Your task to perform on an android device: Open accessibility settings Image 0: 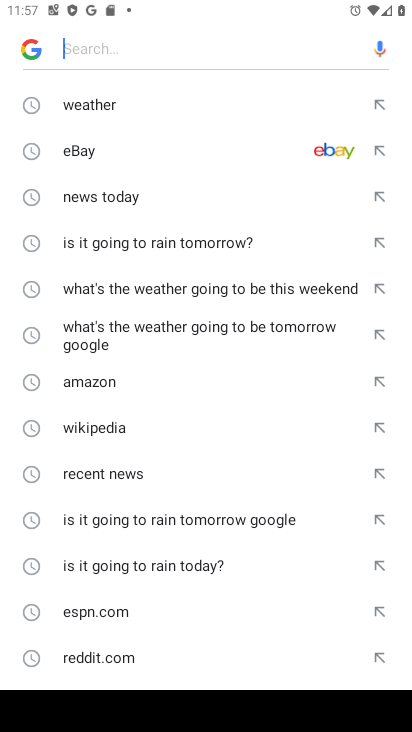
Step 0: press home button
Your task to perform on an android device: Open accessibility settings Image 1: 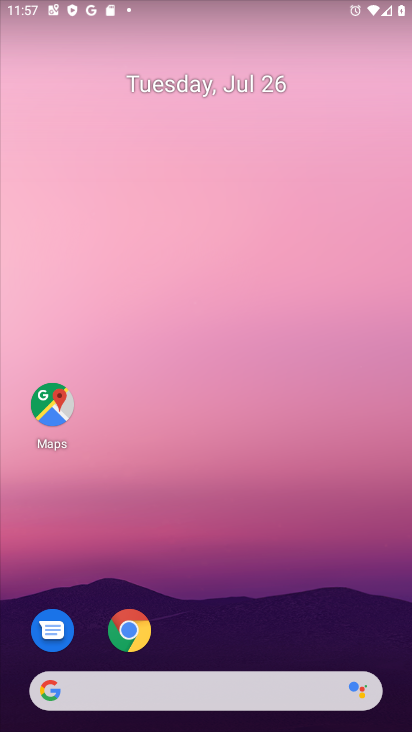
Step 1: drag from (136, 471) to (188, 47)
Your task to perform on an android device: Open accessibility settings Image 2: 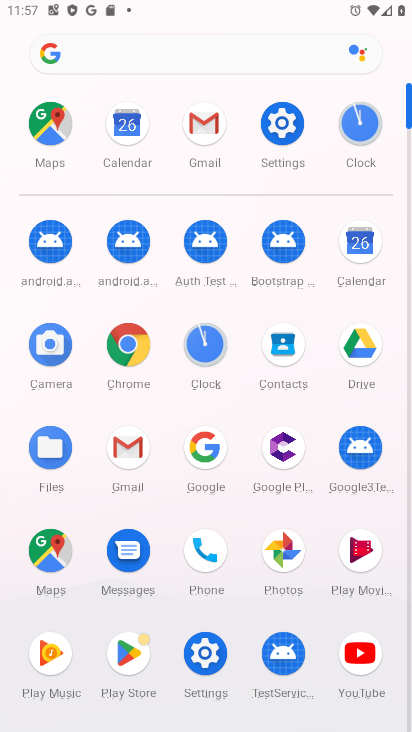
Step 2: click (295, 132)
Your task to perform on an android device: Open accessibility settings Image 3: 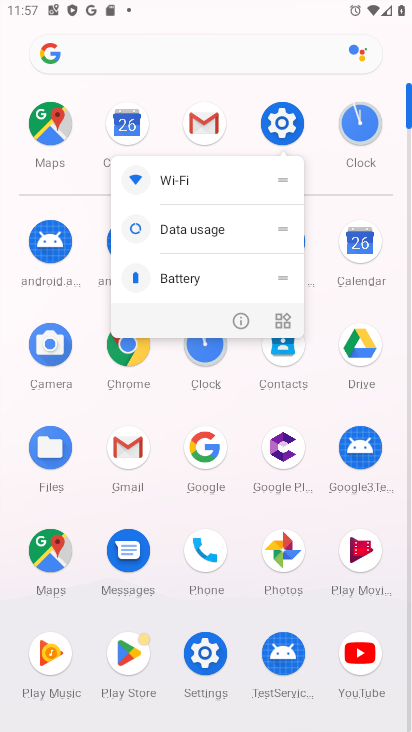
Step 3: click (280, 124)
Your task to perform on an android device: Open accessibility settings Image 4: 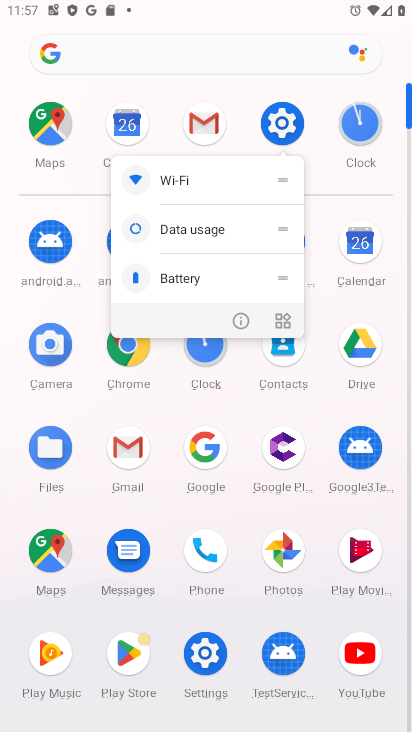
Step 4: click (280, 124)
Your task to perform on an android device: Open accessibility settings Image 5: 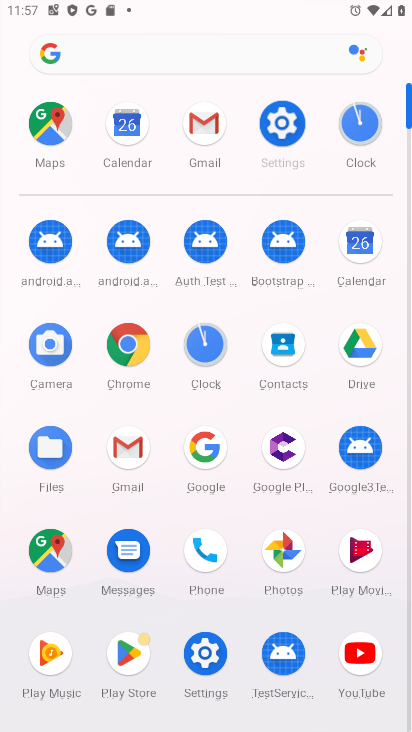
Step 5: click (280, 124)
Your task to perform on an android device: Open accessibility settings Image 6: 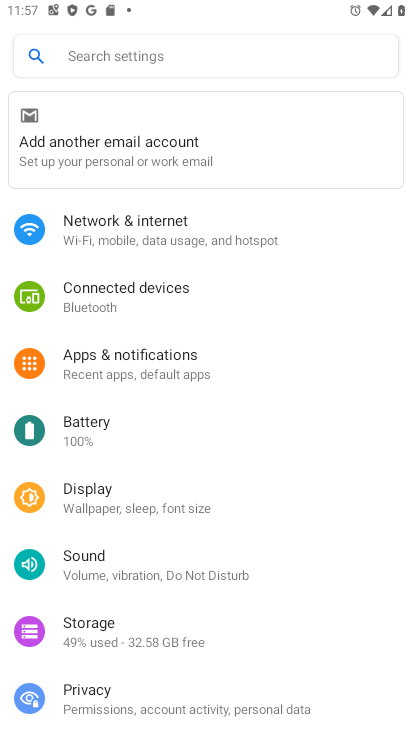
Step 6: drag from (189, 684) to (185, 43)
Your task to perform on an android device: Open accessibility settings Image 7: 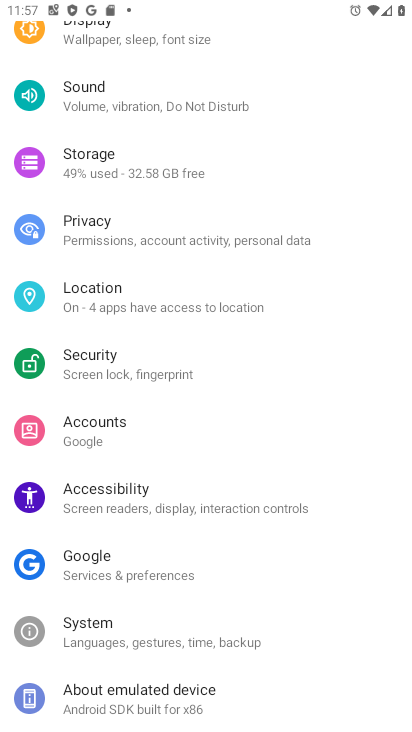
Step 7: click (179, 504)
Your task to perform on an android device: Open accessibility settings Image 8: 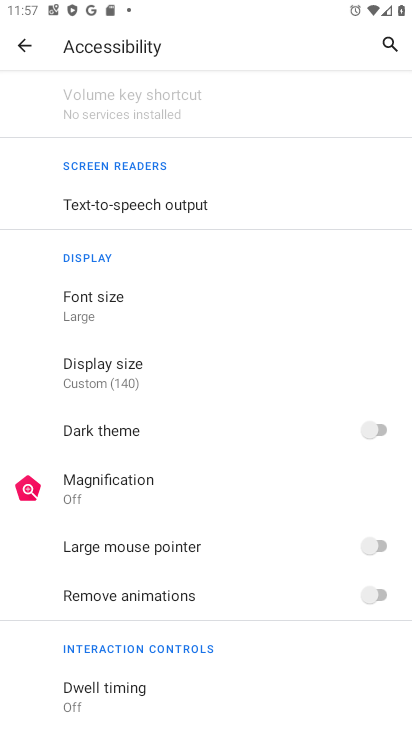
Step 8: task complete